Your task to perform on an android device: Open Google Chrome and open the bookmarks view Image 0: 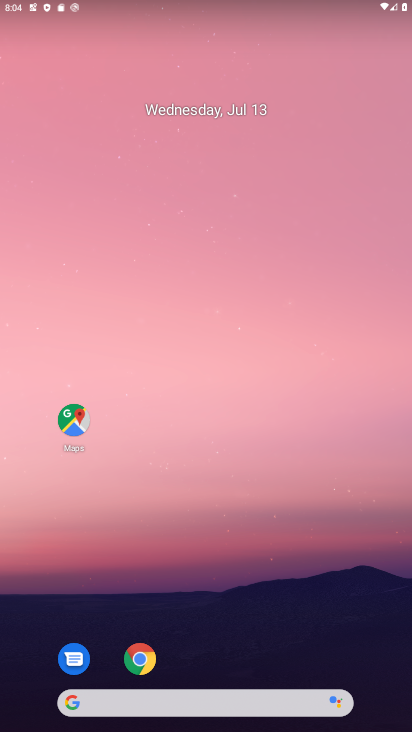
Step 0: click (142, 674)
Your task to perform on an android device: Open Google Chrome and open the bookmarks view Image 1: 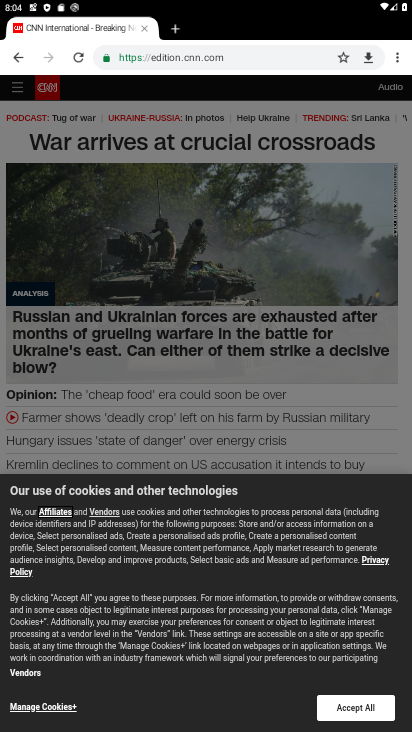
Step 1: click (393, 64)
Your task to perform on an android device: Open Google Chrome and open the bookmarks view Image 2: 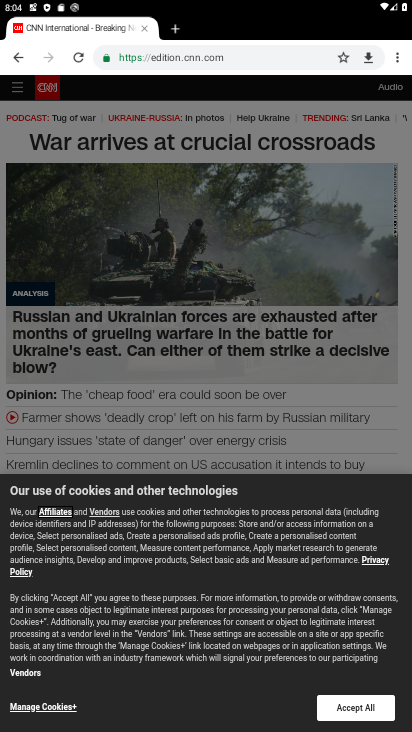
Step 2: click (395, 62)
Your task to perform on an android device: Open Google Chrome and open the bookmarks view Image 3: 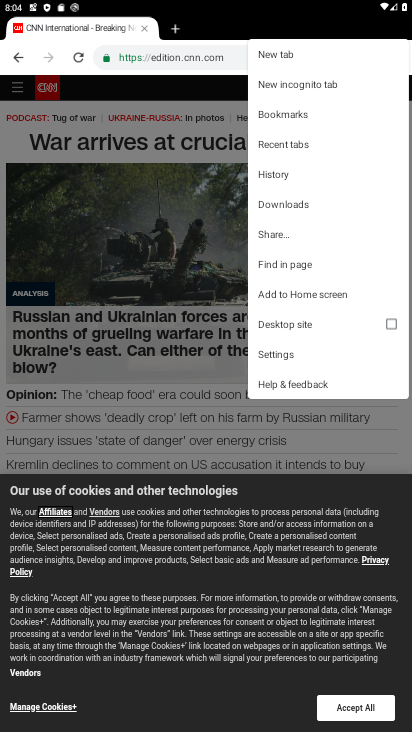
Step 3: click (315, 116)
Your task to perform on an android device: Open Google Chrome and open the bookmarks view Image 4: 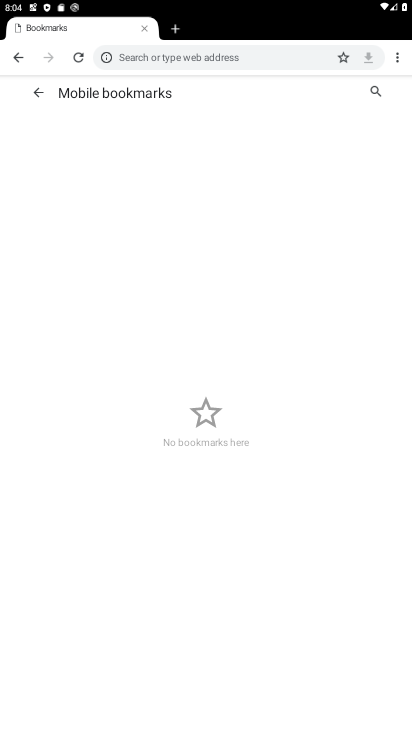
Step 4: task complete